Your task to perform on an android device: turn off notifications settings in the gmail app Image 0: 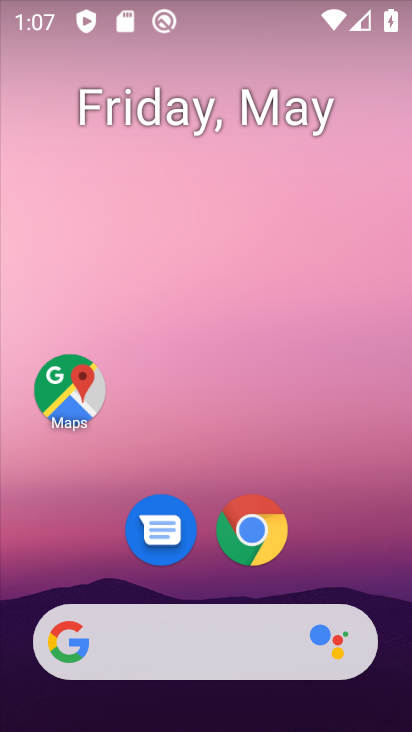
Step 0: drag from (326, 571) to (300, 1)
Your task to perform on an android device: turn off notifications settings in the gmail app Image 1: 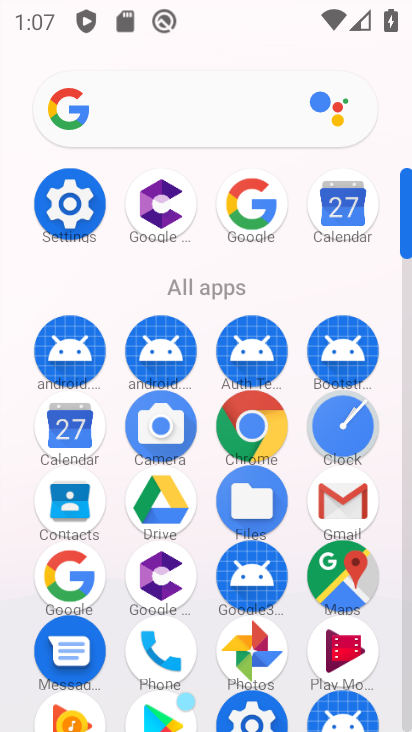
Step 1: click (346, 498)
Your task to perform on an android device: turn off notifications settings in the gmail app Image 2: 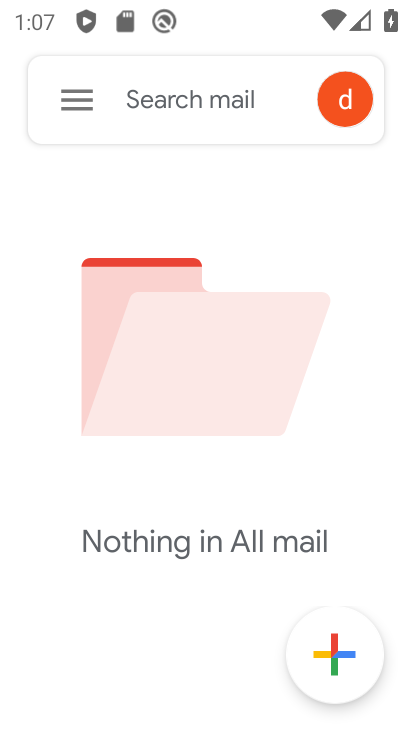
Step 2: click (78, 96)
Your task to perform on an android device: turn off notifications settings in the gmail app Image 3: 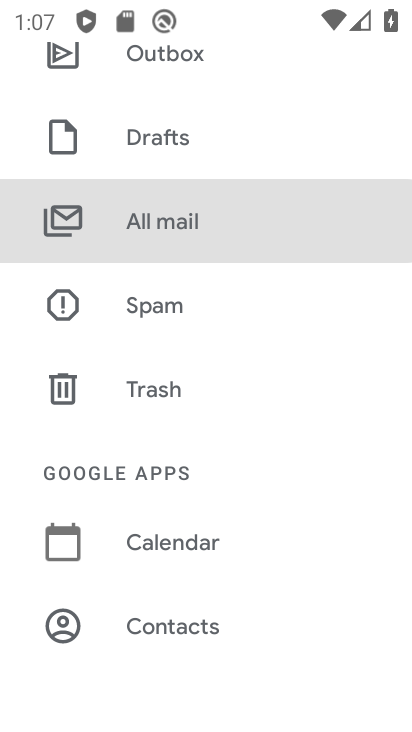
Step 3: drag from (158, 548) to (121, 83)
Your task to perform on an android device: turn off notifications settings in the gmail app Image 4: 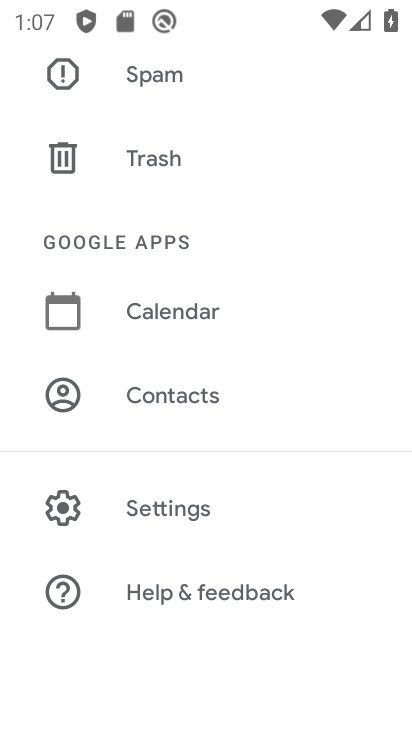
Step 4: click (136, 508)
Your task to perform on an android device: turn off notifications settings in the gmail app Image 5: 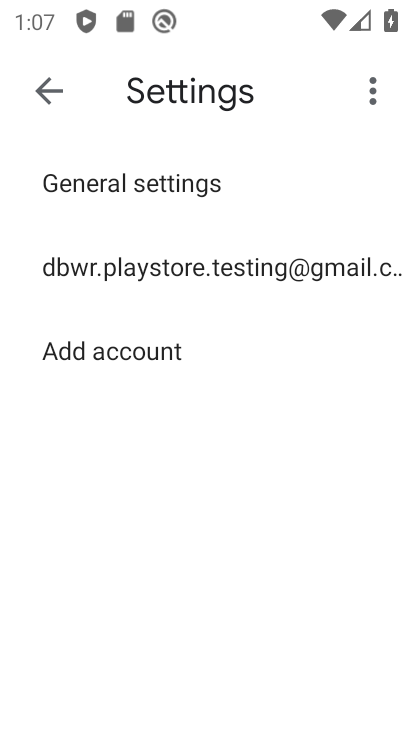
Step 5: click (181, 273)
Your task to perform on an android device: turn off notifications settings in the gmail app Image 6: 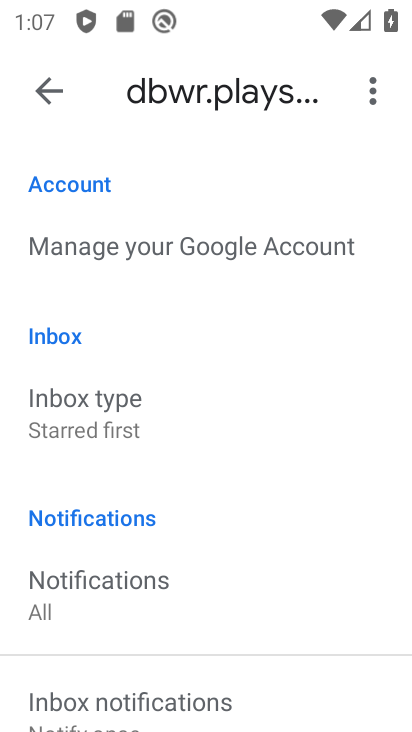
Step 6: drag from (125, 607) to (123, 220)
Your task to perform on an android device: turn off notifications settings in the gmail app Image 7: 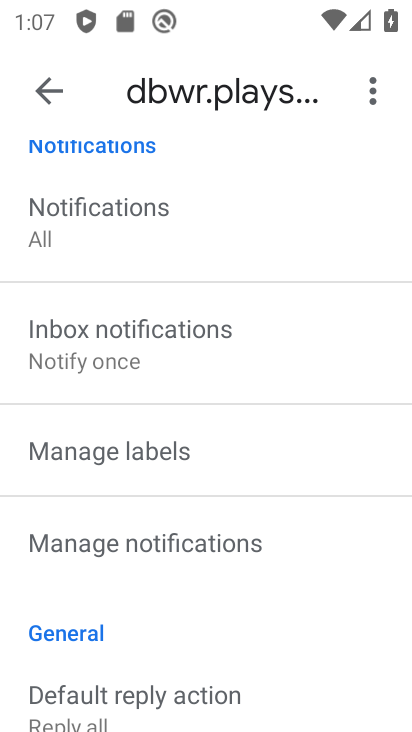
Step 7: click (118, 539)
Your task to perform on an android device: turn off notifications settings in the gmail app Image 8: 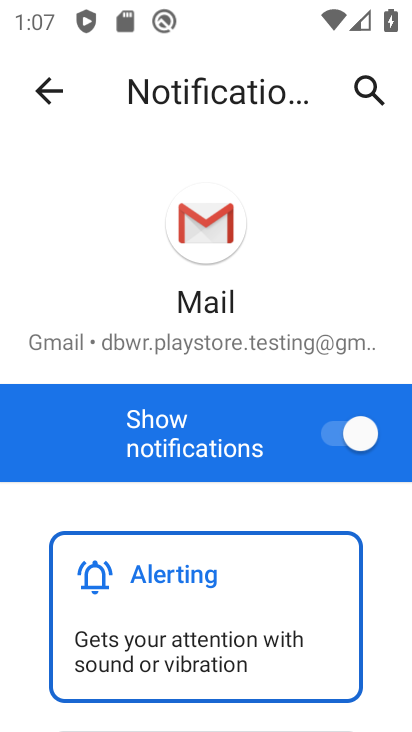
Step 8: click (357, 452)
Your task to perform on an android device: turn off notifications settings in the gmail app Image 9: 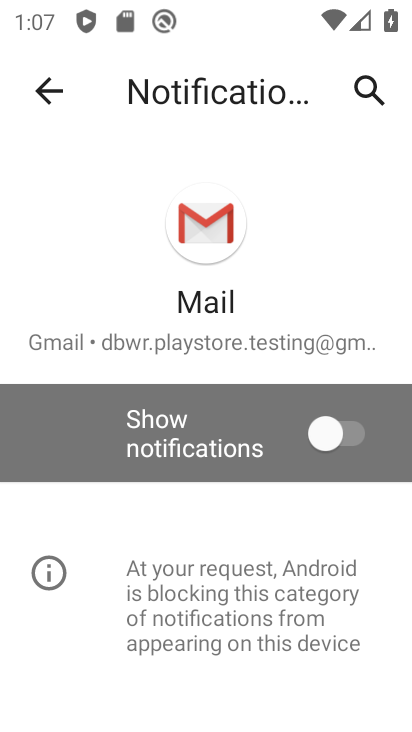
Step 9: task complete